Your task to perform on an android device: open device folders in google photos Image 0: 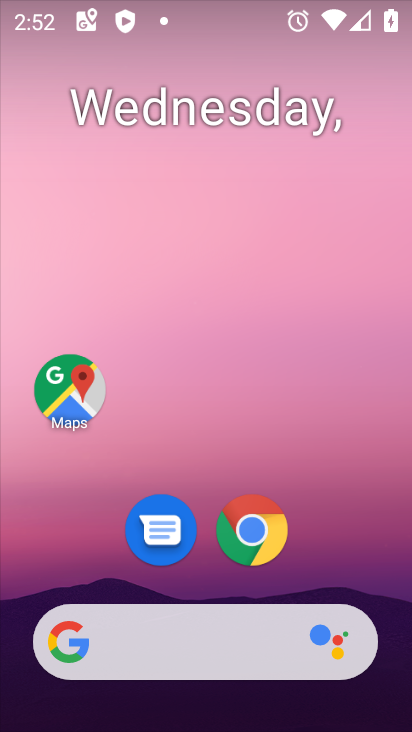
Step 0: drag from (211, 650) to (218, 2)
Your task to perform on an android device: open device folders in google photos Image 1: 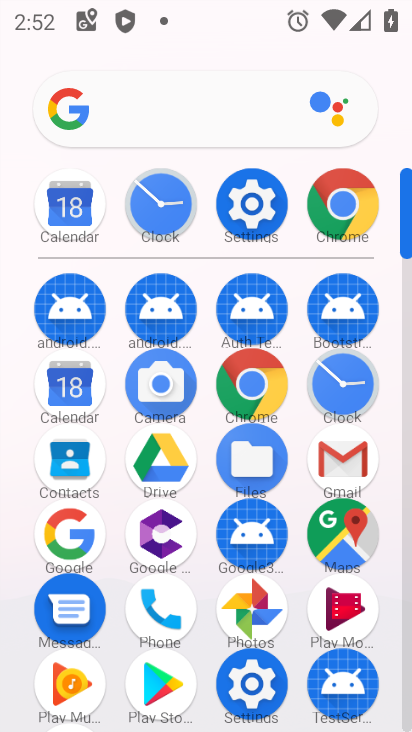
Step 1: click (253, 610)
Your task to perform on an android device: open device folders in google photos Image 2: 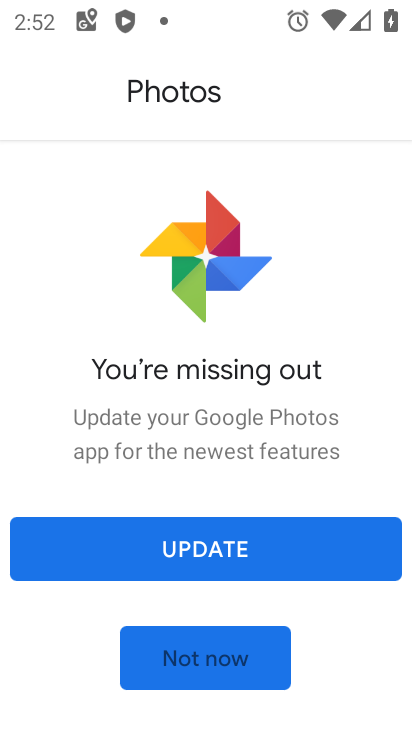
Step 2: click (231, 677)
Your task to perform on an android device: open device folders in google photos Image 3: 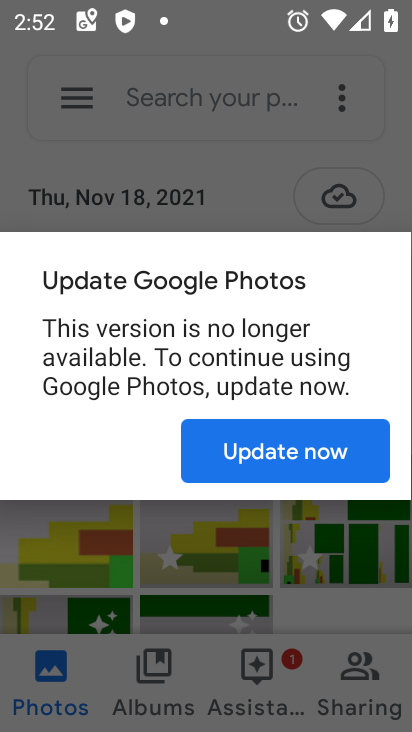
Step 3: click (223, 526)
Your task to perform on an android device: open device folders in google photos Image 4: 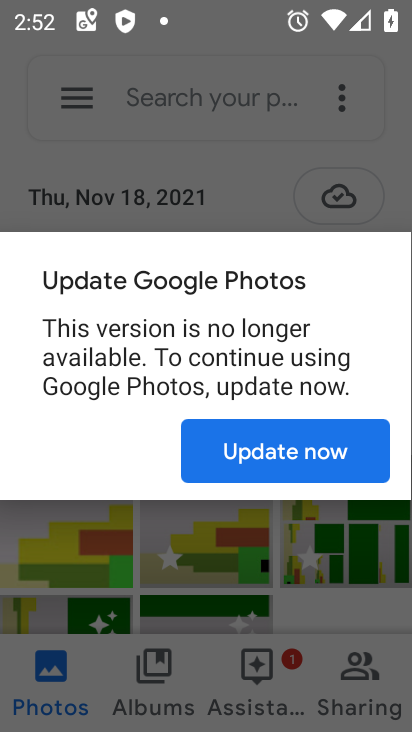
Step 4: click (333, 454)
Your task to perform on an android device: open device folders in google photos Image 5: 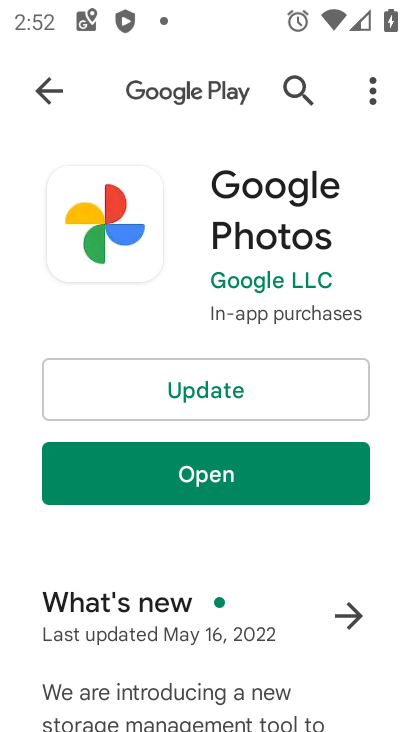
Step 5: click (237, 407)
Your task to perform on an android device: open device folders in google photos Image 6: 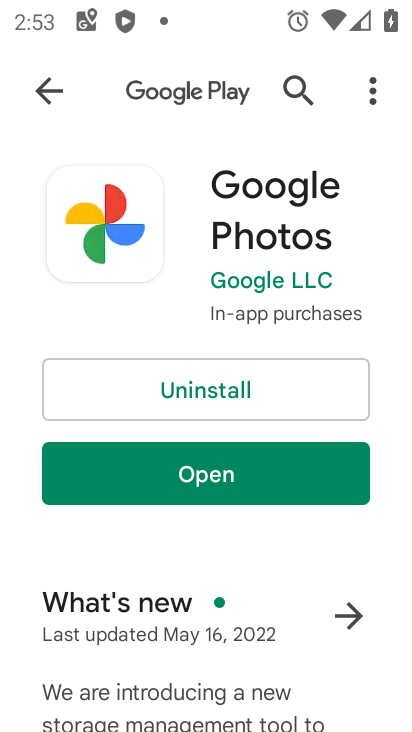
Step 6: click (312, 471)
Your task to perform on an android device: open device folders in google photos Image 7: 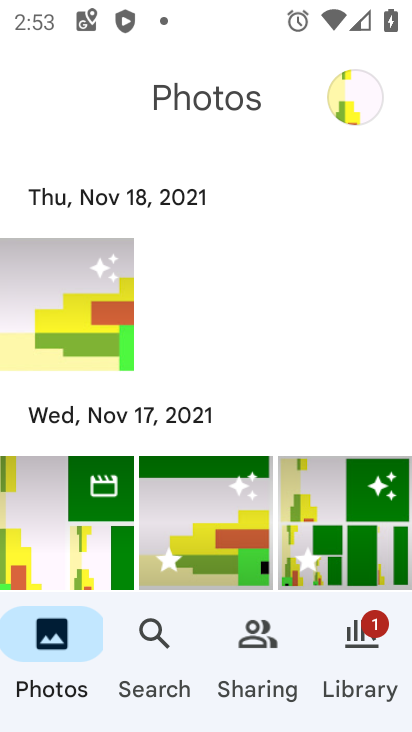
Step 7: click (366, 668)
Your task to perform on an android device: open device folders in google photos Image 8: 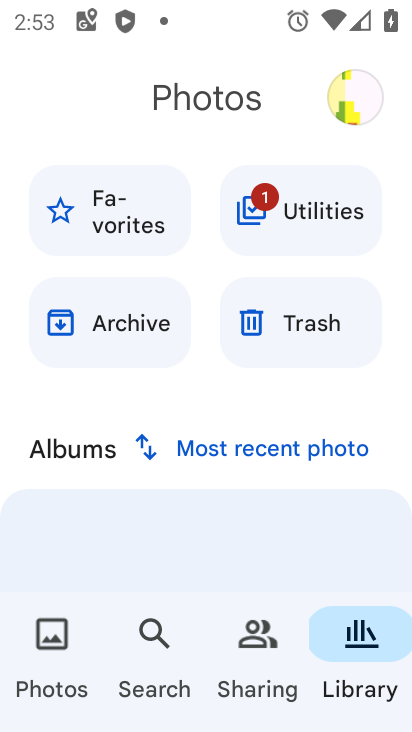
Step 8: task complete